Your task to perform on an android device: turn on data saver in the chrome app Image 0: 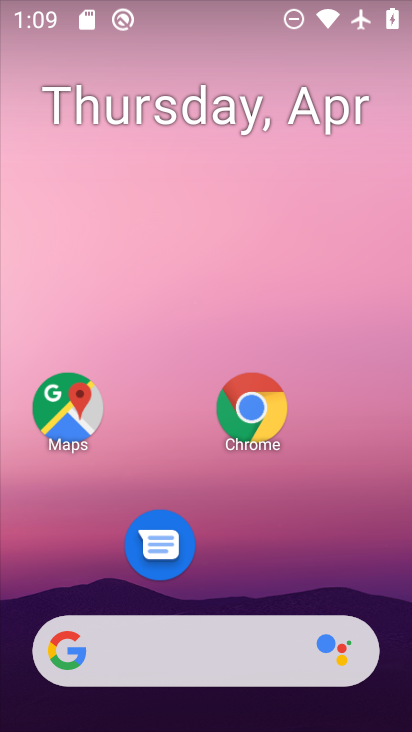
Step 0: click (249, 416)
Your task to perform on an android device: turn on data saver in the chrome app Image 1: 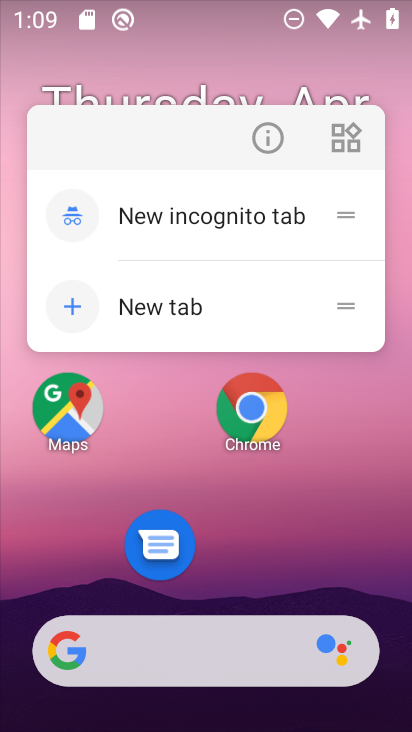
Step 1: click (249, 418)
Your task to perform on an android device: turn on data saver in the chrome app Image 2: 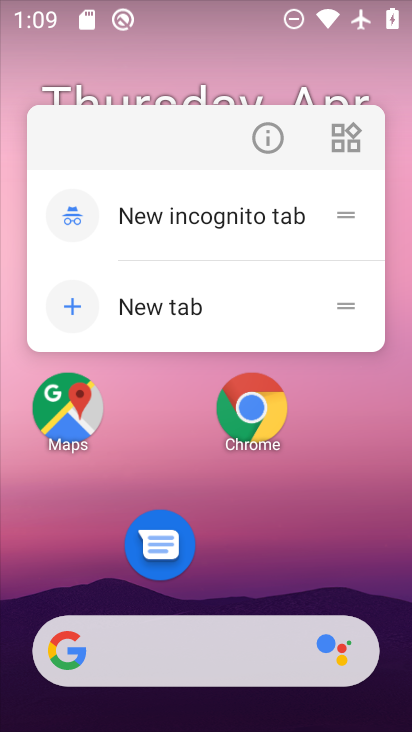
Step 2: drag from (331, 559) to (272, 19)
Your task to perform on an android device: turn on data saver in the chrome app Image 3: 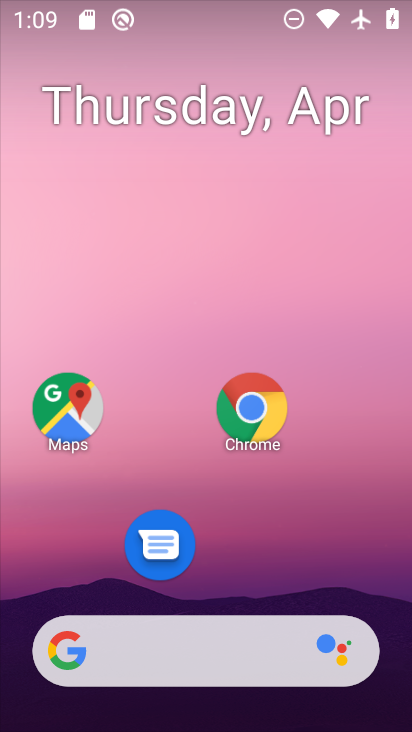
Step 3: drag from (352, 552) to (325, 171)
Your task to perform on an android device: turn on data saver in the chrome app Image 4: 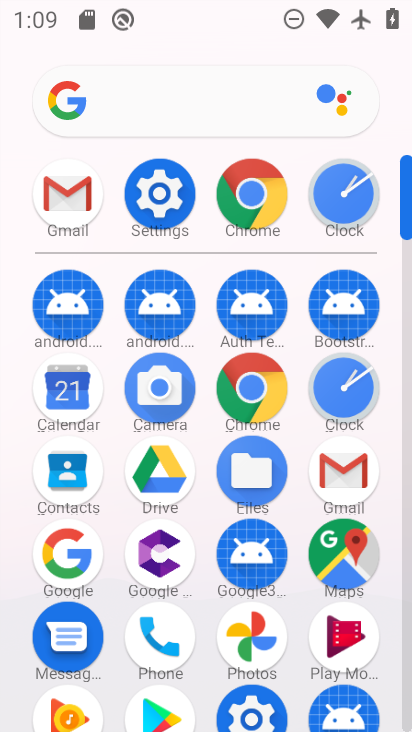
Step 4: click (247, 389)
Your task to perform on an android device: turn on data saver in the chrome app Image 5: 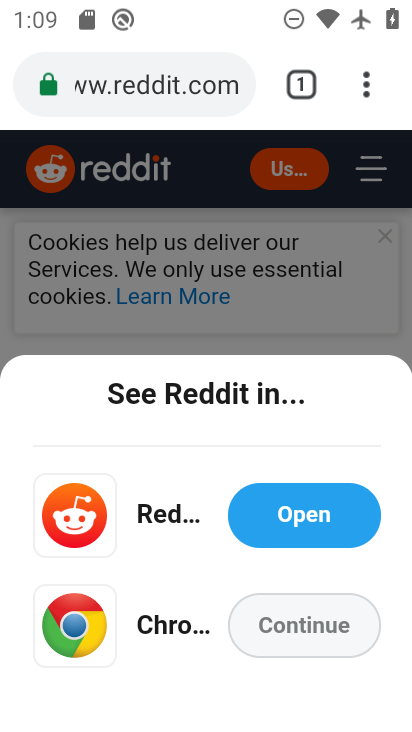
Step 5: drag from (171, 416) to (261, 589)
Your task to perform on an android device: turn on data saver in the chrome app Image 6: 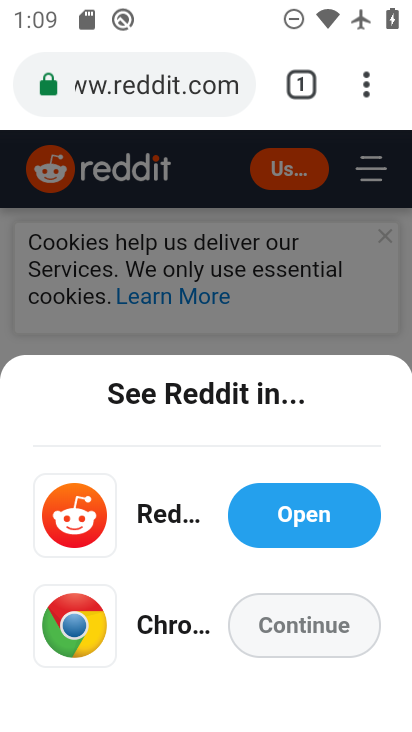
Step 6: click (354, 82)
Your task to perform on an android device: turn on data saver in the chrome app Image 7: 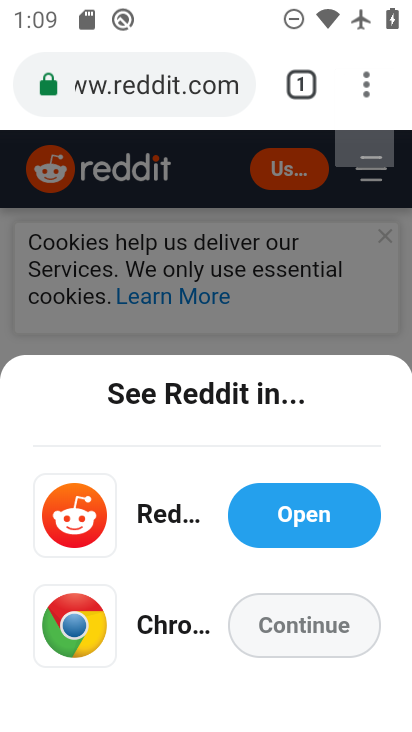
Step 7: click (365, 79)
Your task to perform on an android device: turn on data saver in the chrome app Image 8: 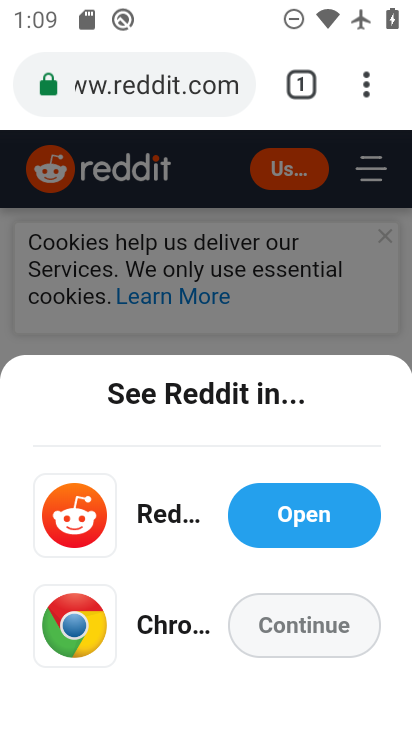
Step 8: drag from (364, 81) to (118, 570)
Your task to perform on an android device: turn on data saver in the chrome app Image 9: 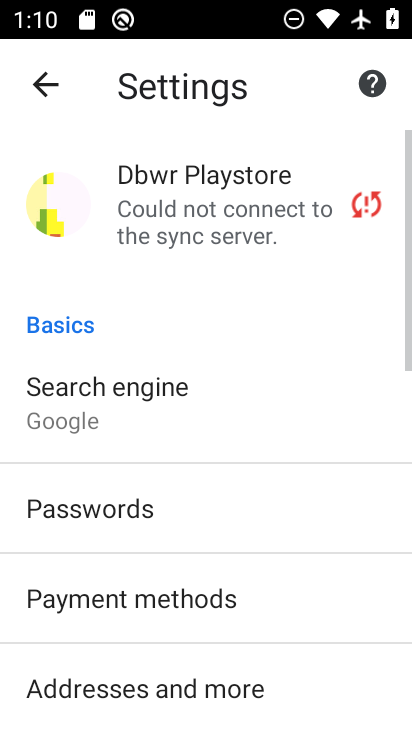
Step 9: drag from (257, 576) to (283, 103)
Your task to perform on an android device: turn on data saver in the chrome app Image 10: 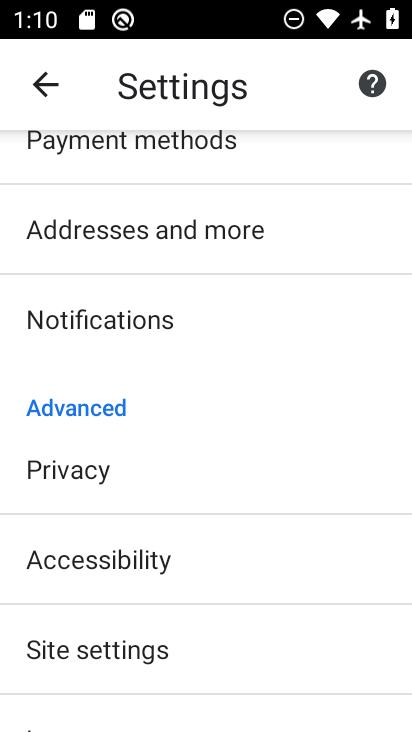
Step 10: drag from (218, 542) to (251, 190)
Your task to perform on an android device: turn on data saver in the chrome app Image 11: 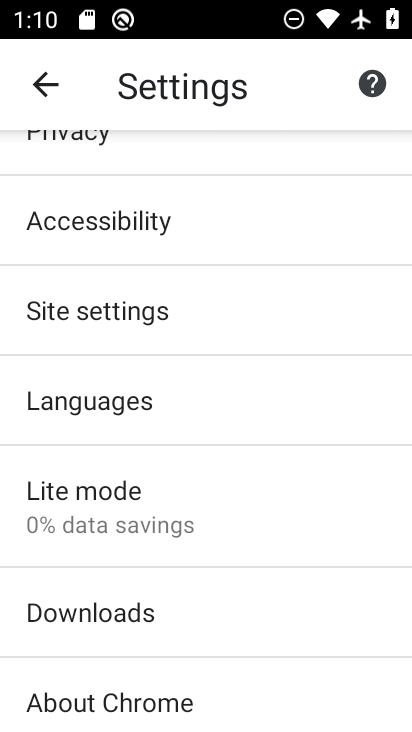
Step 11: click (145, 514)
Your task to perform on an android device: turn on data saver in the chrome app Image 12: 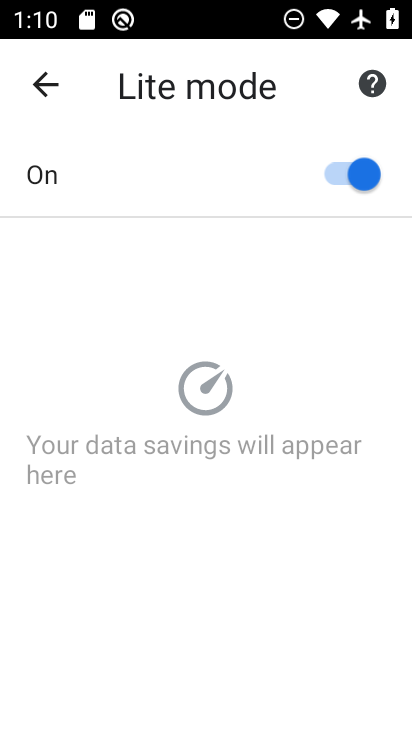
Step 12: task complete